Your task to perform on an android device: turn off notifications settings in the gmail app Image 0: 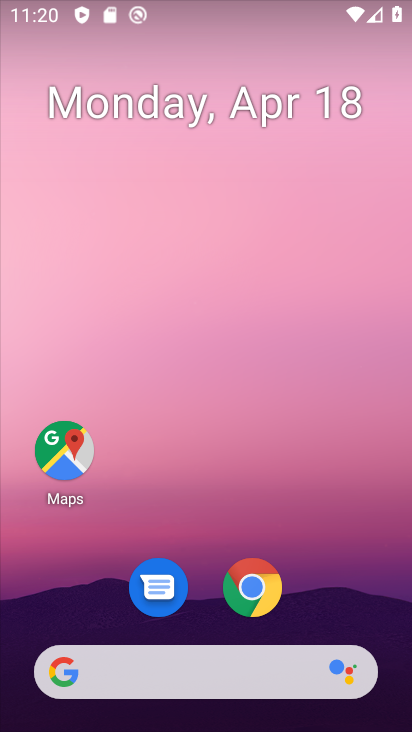
Step 0: drag from (334, 604) to (367, 121)
Your task to perform on an android device: turn off notifications settings in the gmail app Image 1: 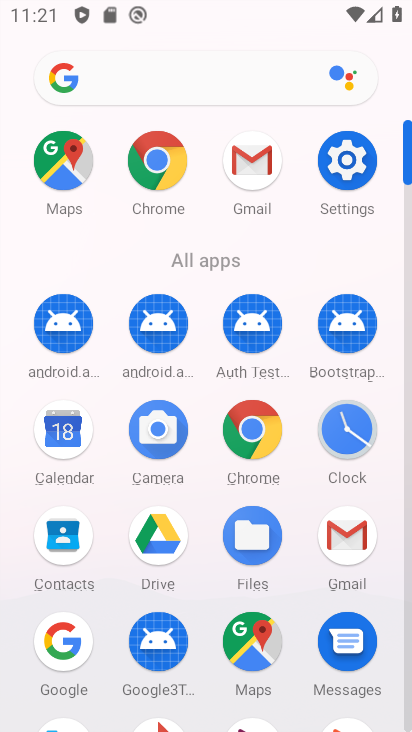
Step 1: click (359, 551)
Your task to perform on an android device: turn off notifications settings in the gmail app Image 2: 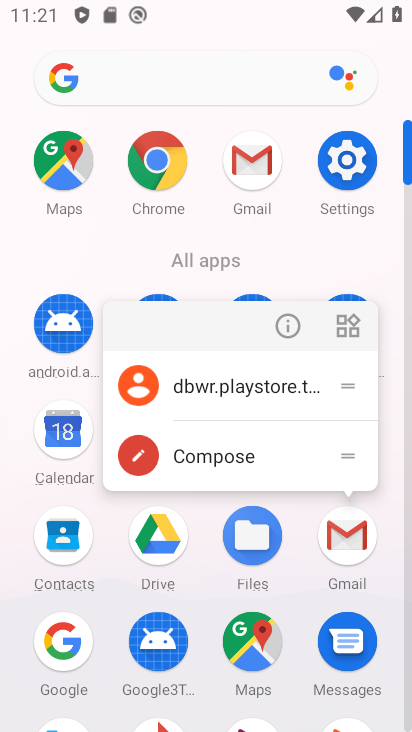
Step 2: click (279, 321)
Your task to perform on an android device: turn off notifications settings in the gmail app Image 3: 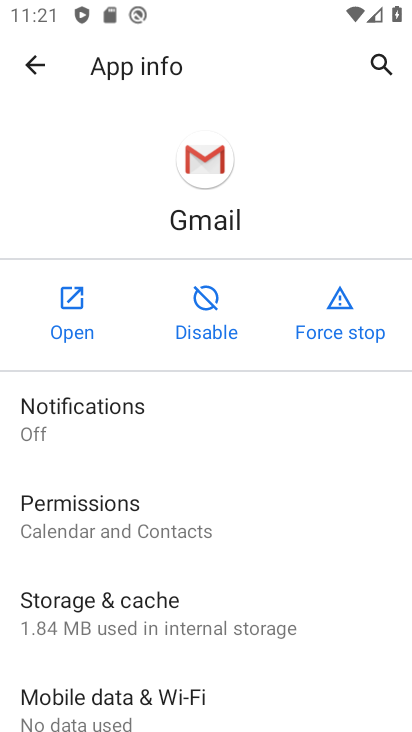
Step 3: click (88, 425)
Your task to perform on an android device: turn off notifications settings in the gmail app Image 4: 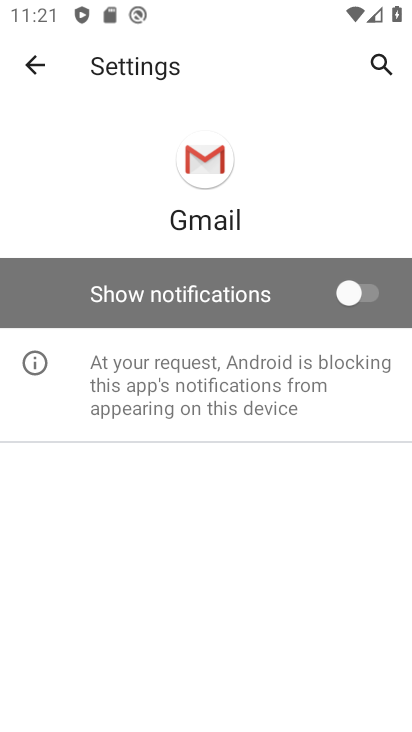
Step 4: task complete